Your task to perform on an android device: Open the calendar and show me this week's events Image 0: 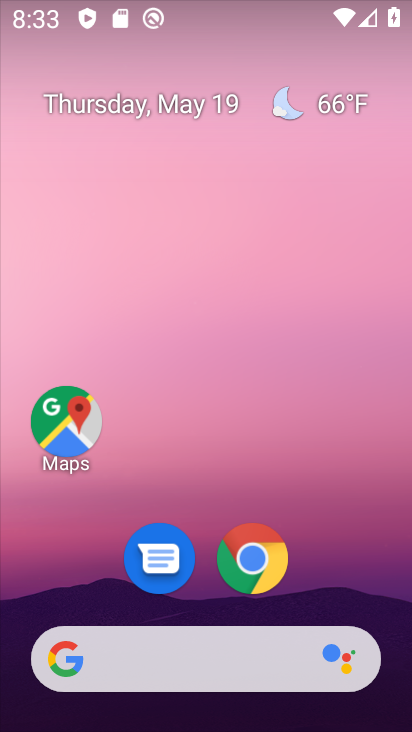
Step 0: drag from (211, 601) to (216, 201)
Your task to perform on an android device: Open the calendar and show me this week's events Image 1: 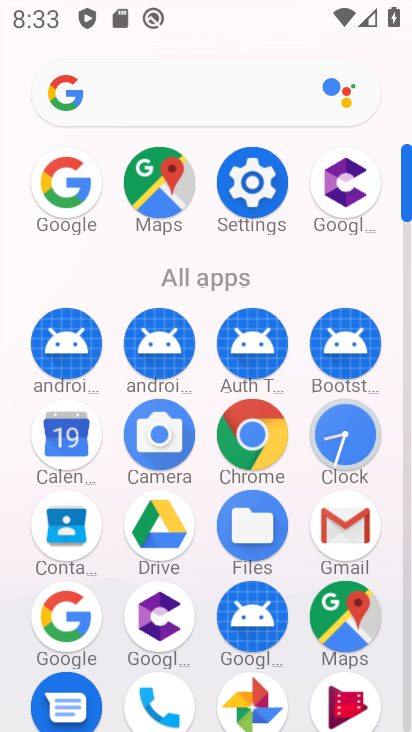
Step 1: click (63, 429)
Your task to perform on an android device: Open the calendar and show me this week's events Image 2: 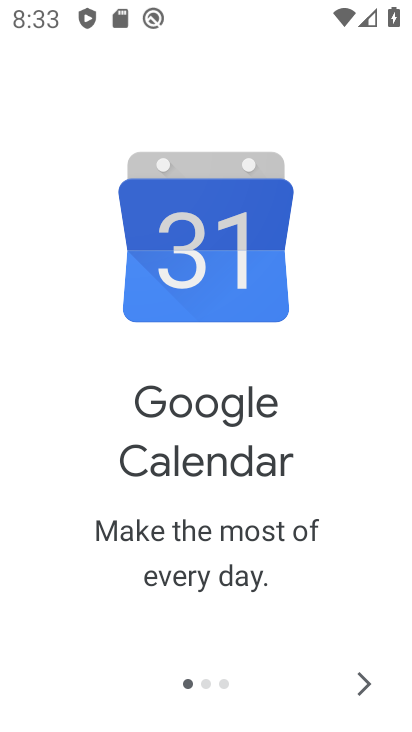
Step 2: click (357, 699)
Your task to perform on an android device: Open the calendar and show me this week's events Image 3: 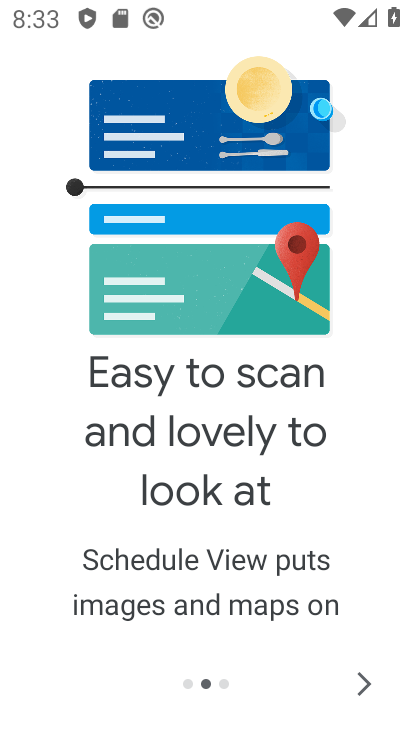
Step 3: click (361, 702)
Your task to perform on an android device: Open the calendar and show me this week's events Image 4: 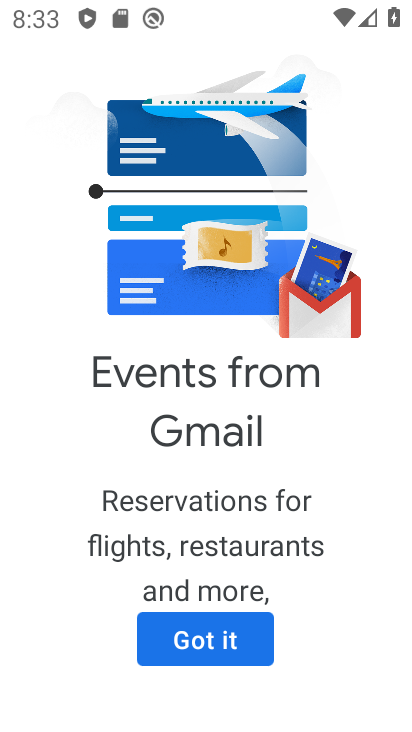
Step 4: click (213, 638)
Your task to perform on an android device: Open the calendar and show me this week's events Image 5: 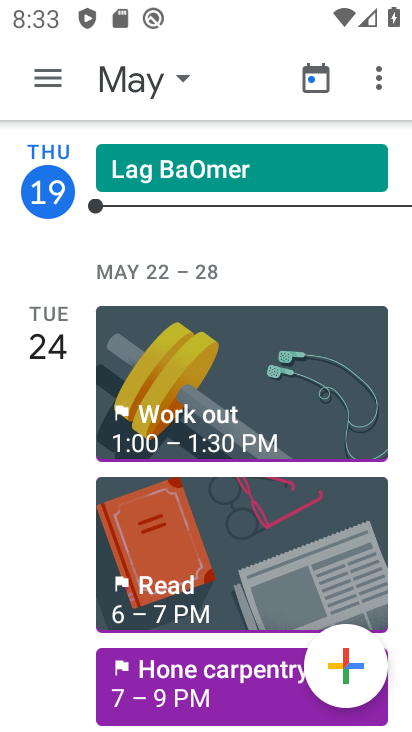
Step 5: click (61, 69)
Your task to perform on an android device: Open the calendar and show me this week's events Image 6: 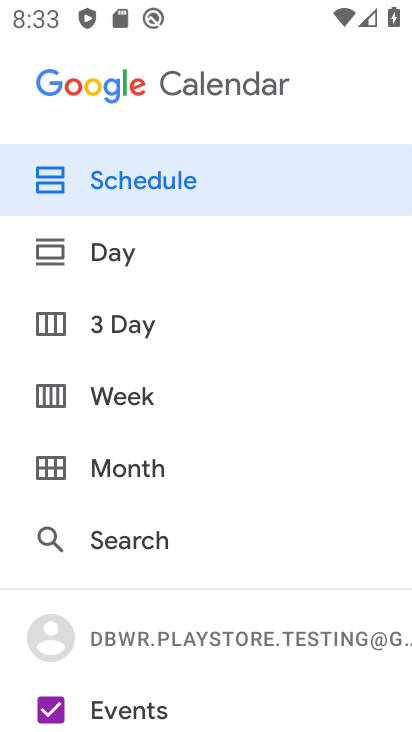
Step 6: click (251, 193)
Your task to perform on an android device: Open the calendar and show me this week's events Image 7: 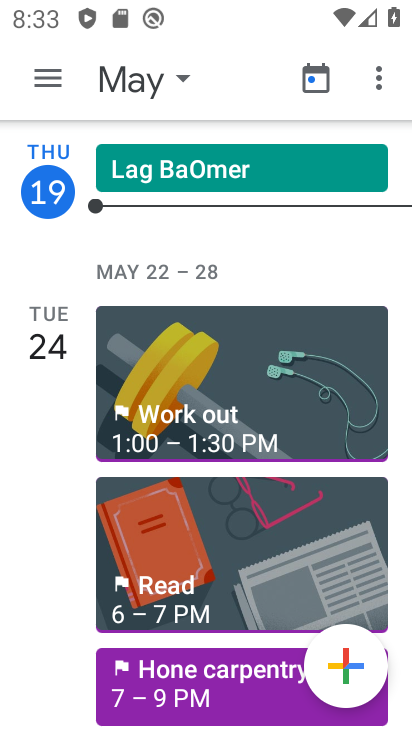
Step 7: click (183, 73)
Your task to perform on an android device: Open the calendar and show me this week's events Image 8: 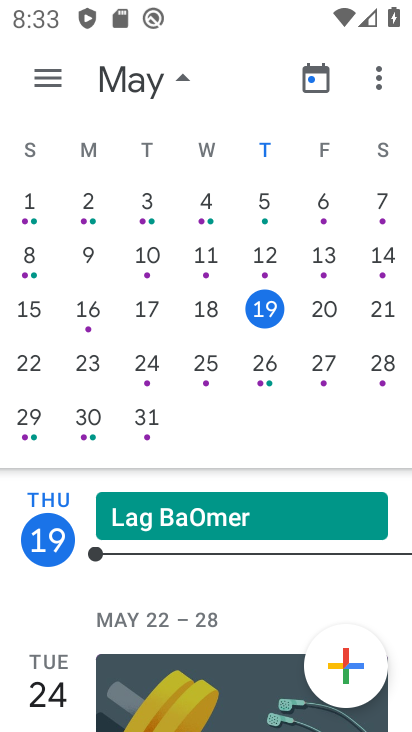
Step 8: click (183, 73)
Your task to perform on an android device: Open the calendar and show me this week's events Image 9: 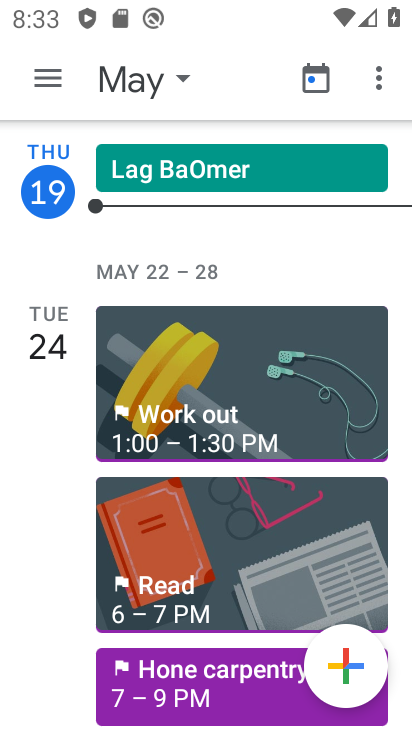
Step 9: task complete